Your task to perform on an android device: Open the map Image 0: 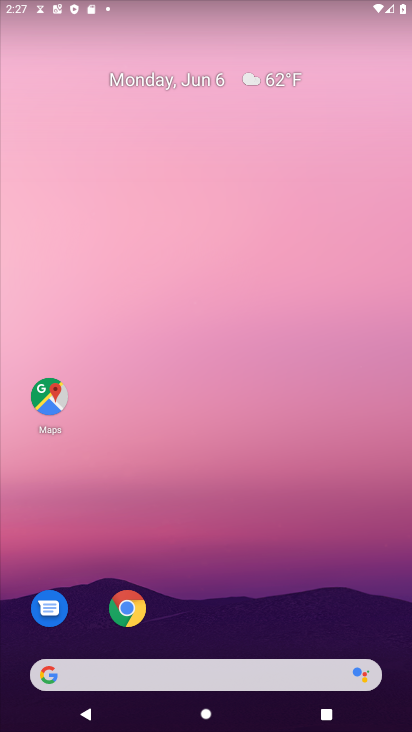
Step 0: drag from (308, 584) to (400, 129)
Your task to perform on an android device: Open the map Image 1: 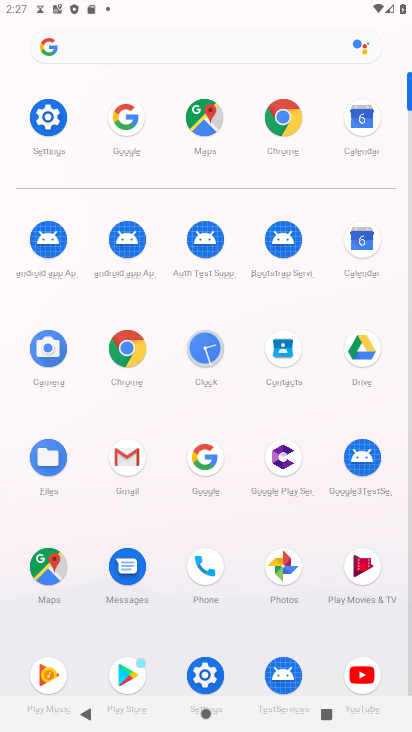
Step 1: click (209, 111)
Your task to perform on an android device: Open the map Image 2: 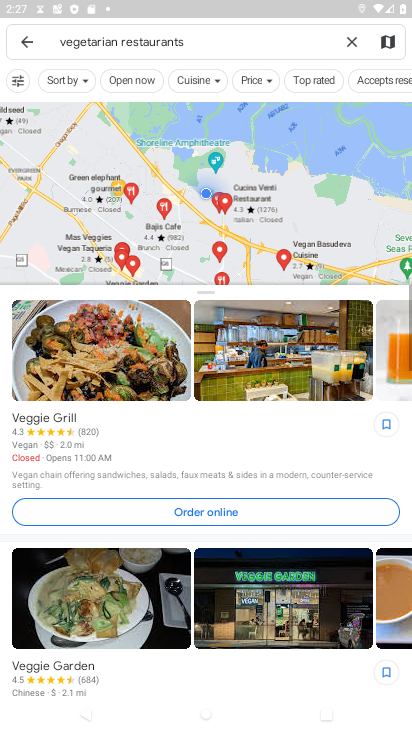
Step 2: task complete